Your task to perform on an android device: Open the phone app and click the voicemail tab. Image 0: 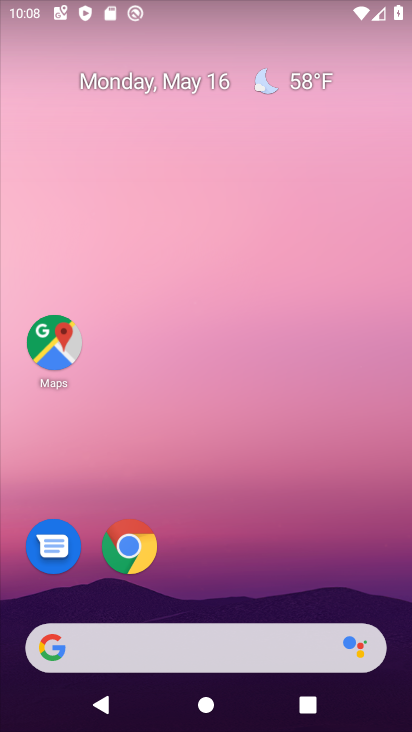
Step 0: drag from (274, 572) to (182, 142)
Your task to perform on an android device: Open the phone app and click the voicemail tab. Image 1: 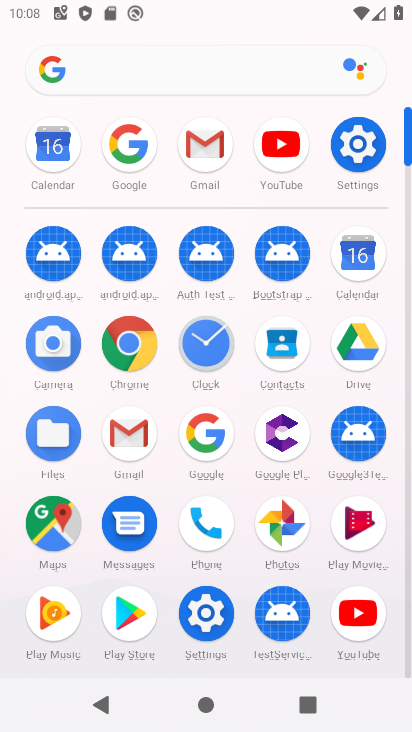
Step 1: click (198, 527)
Your task to perform on an android device: Open the phone app and click the voicemail tab. Image 2: 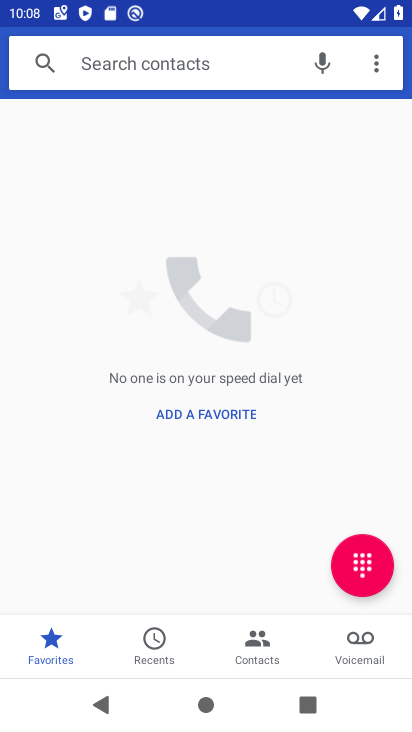
Step 2: click (358, 642)
Your task to perform on an android device: Open the phone app and click the voicemail tab. Image 3: 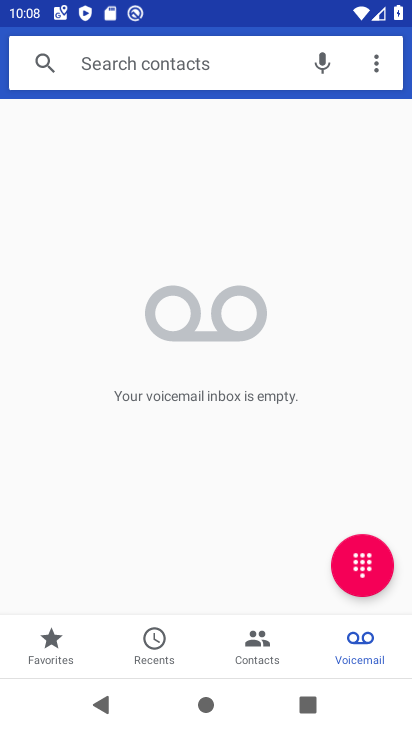
Step 3: task complete